Your task to perform on an android device: Open privacy settings Image 0: 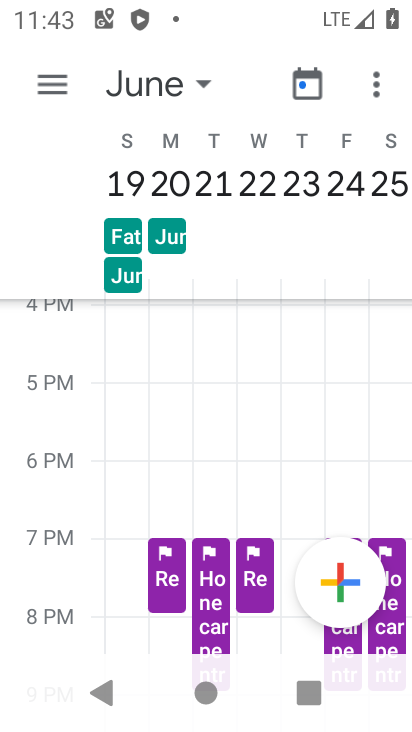
Step 0: press home button
Your task to perform on an android device: Open privacy settings Image 1: 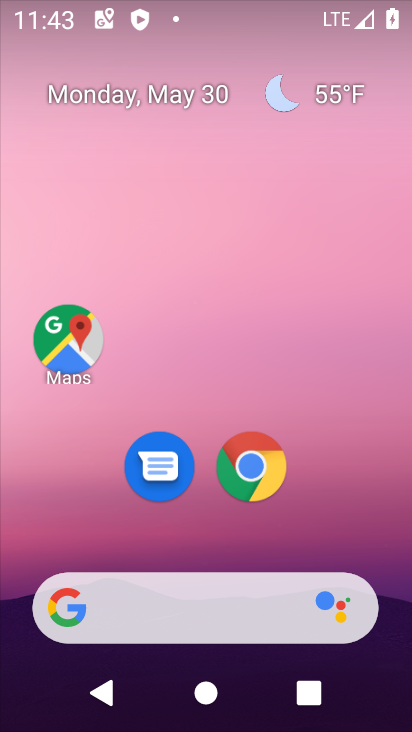
Step 1: drag from (318, 554) to (296, 121)
Your task to perform on an android device: Open privacy settings Image 2: 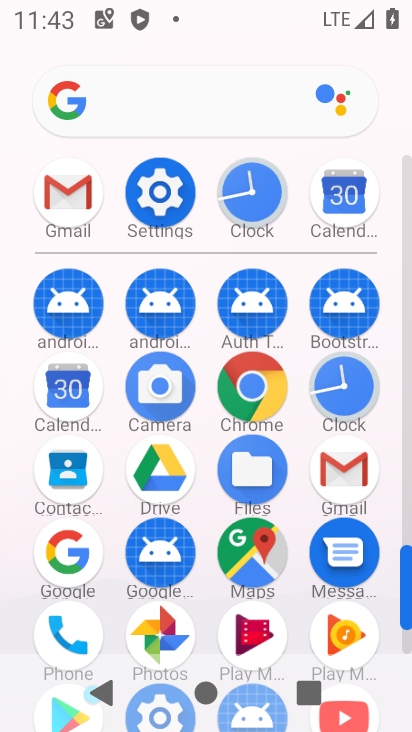
Step 2: click (160, 192)
Your task to perform on an android device: Open privacy settings Image 3: 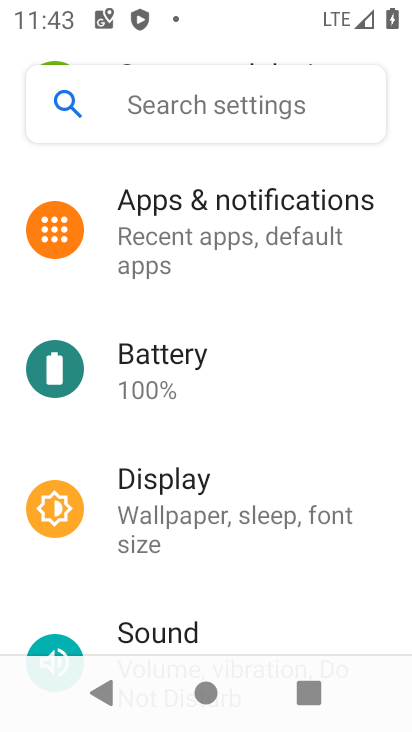
Step 3: drag from (277, 608) to (266, 190)
Your task to perform on an android device: Open privacy settings Image 4: 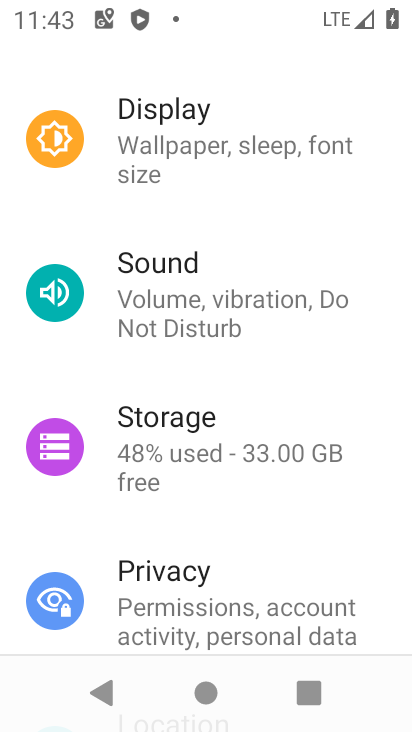
Step 4: click (255, 611)
Your task to perform on an android device: Open privacy settings Image 5: 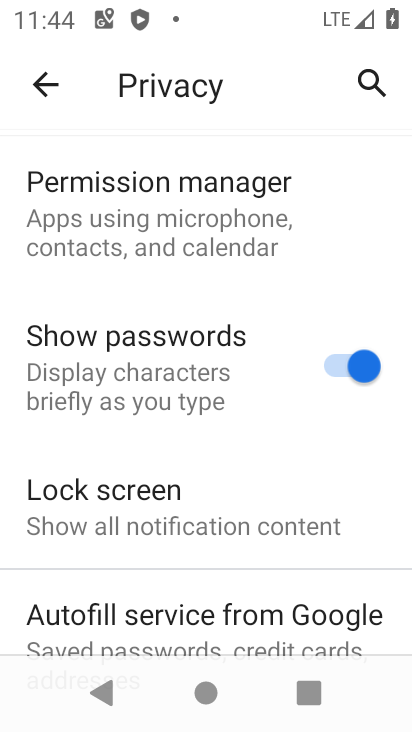
Step 5: task complete